Your task to perform on an android device: Open wifi settings Image 0: 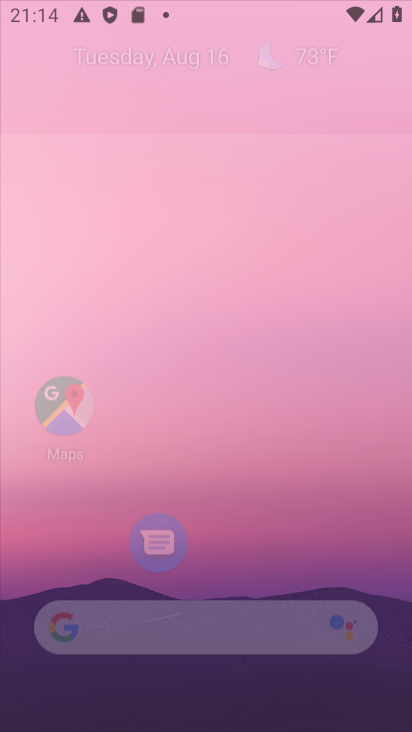
Step 0: click (211, 186)
Your task to perform on an android device: Open wifi settings Image 1: 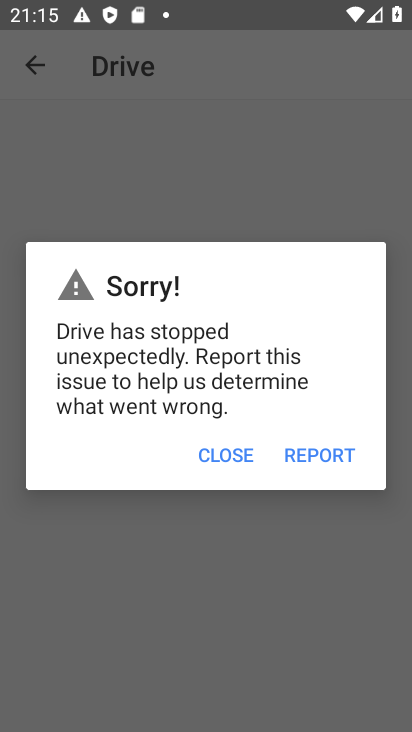
Step 1: press back button
Your task to perform on an android device: Open wifi settings Image 2: 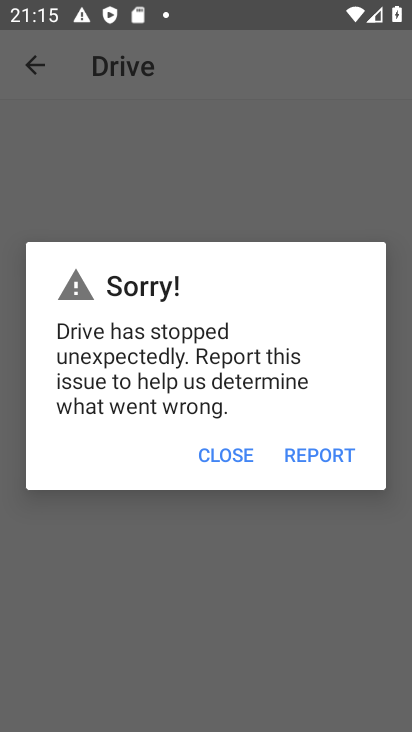
Step 2: click (193, 462)
Your task to perform on an android device: Open wifi settings Image 3: 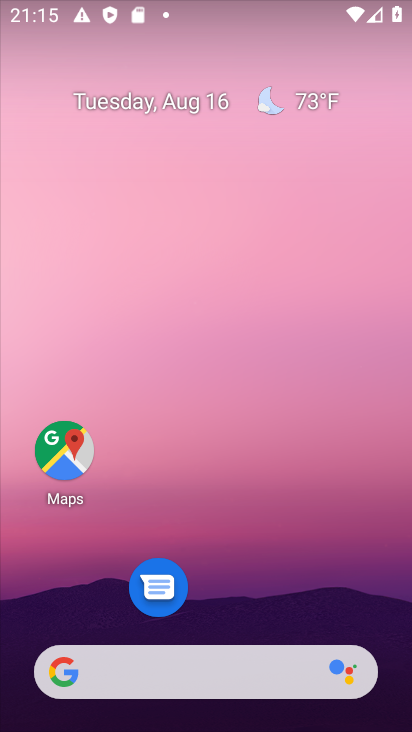
Step 3: click (162, 462)
Your task to perform on an android device: Open wifi settings Image 4: 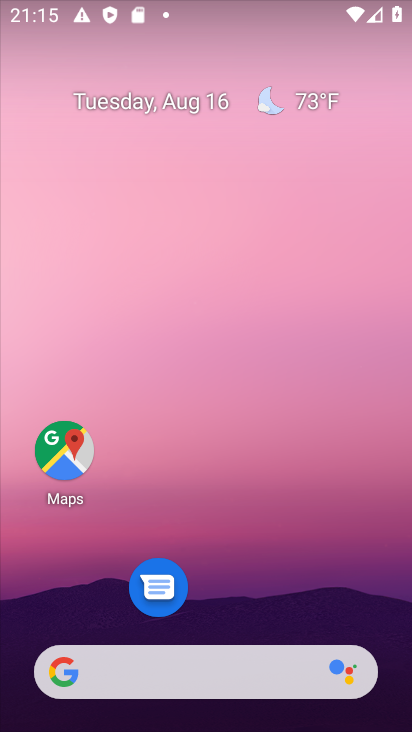
Step 4: drag from (253, 634) to (194, 153)
Your task to perform on an android device: Open wifi settings Image 5: 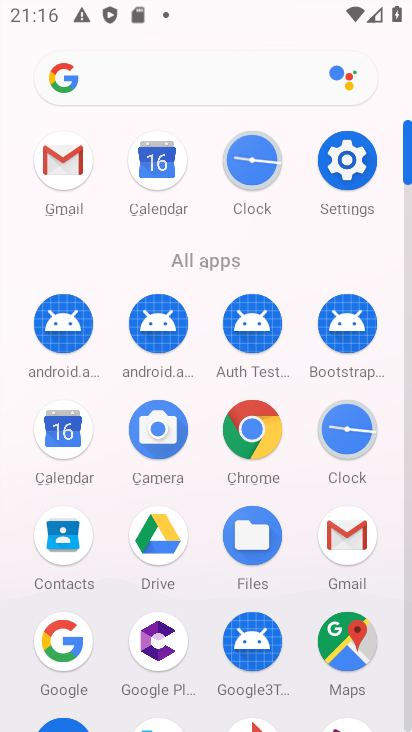
Step 5: click (194, 153)
Your task to perform on an android device: Open wifi settings Image 6: 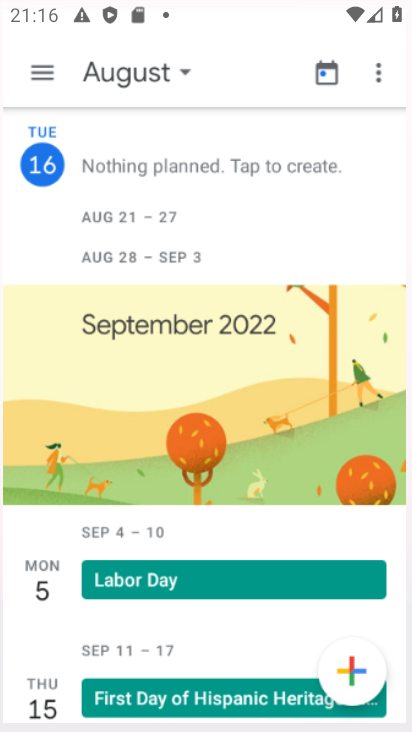
Step 6: click (365, 161)
Your task to perform on an android device: Open wifi settings Image 7: 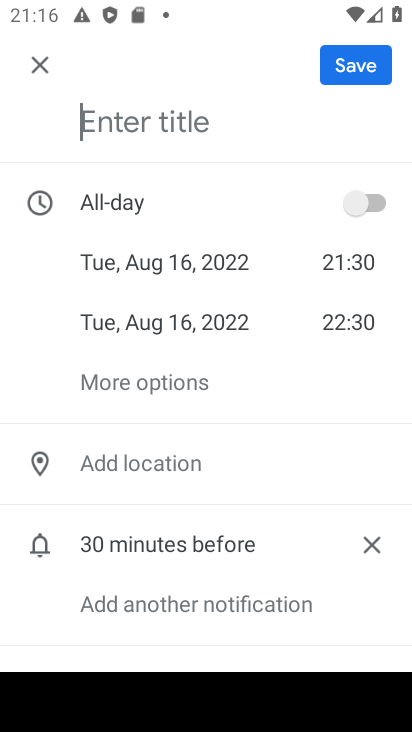
Step 7: press back button
Your task to perform on an android device: Open wifi settings Image 8: 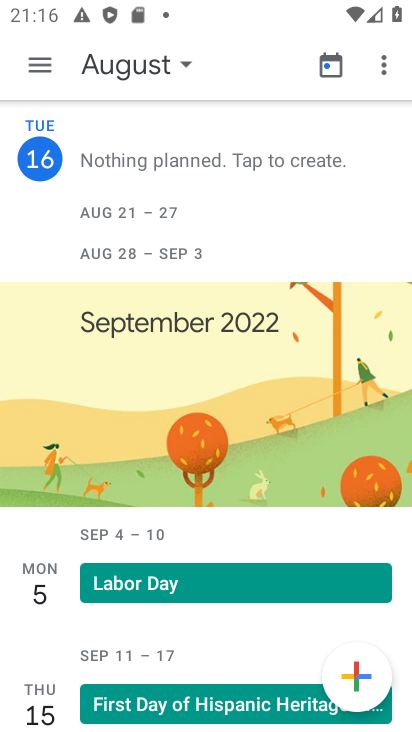
Step 8: press back button
Your task to perform on an android device: Open wifi settings Image 9: 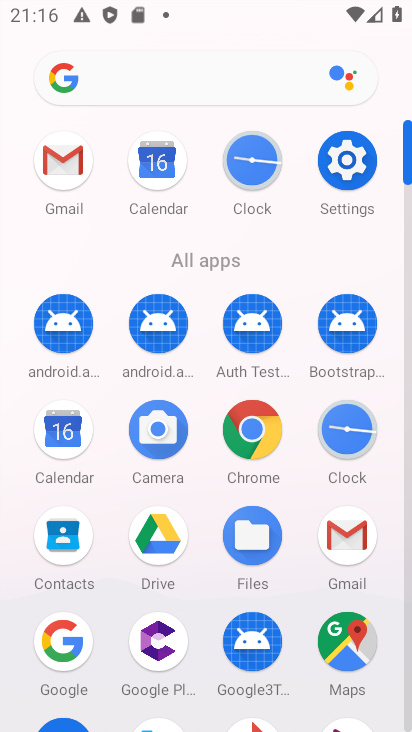
Step 9: press home button
Your task to perform on an android device: Open wifi settings Image 10: 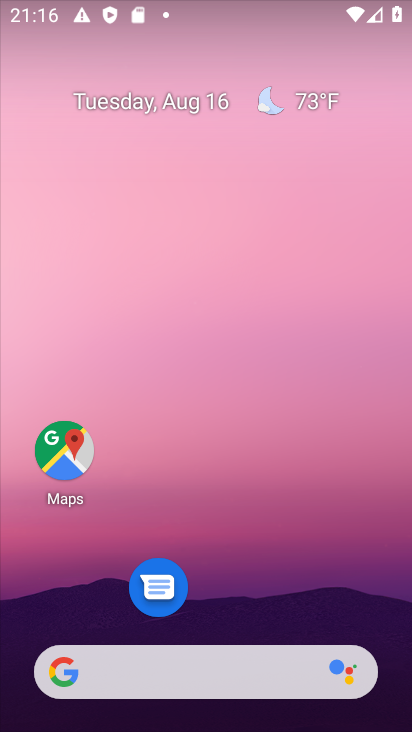
Step 10: drag from (226, 610) to (308, 14)
Your task to perform on an android device: Open wifi settings Image 11: 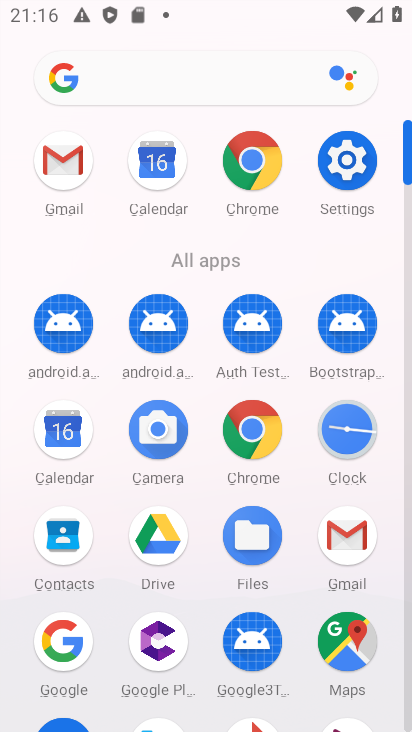
Step 11: click (356, 181)
Your task to perform on an android device: Open wifi settings Image 12: 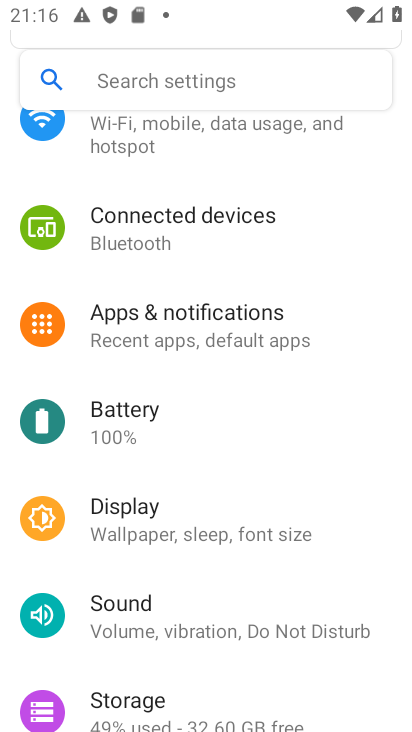
Step 12: click (219, 157)
Your task to perform on an android device: Open wifi settings Image 13: 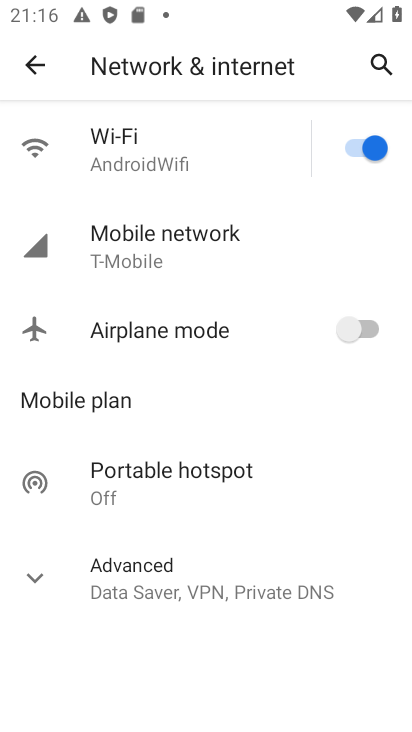
Step 13: click (189, 160)
Your task to perform on an android device: Open wifi settings Image 14: 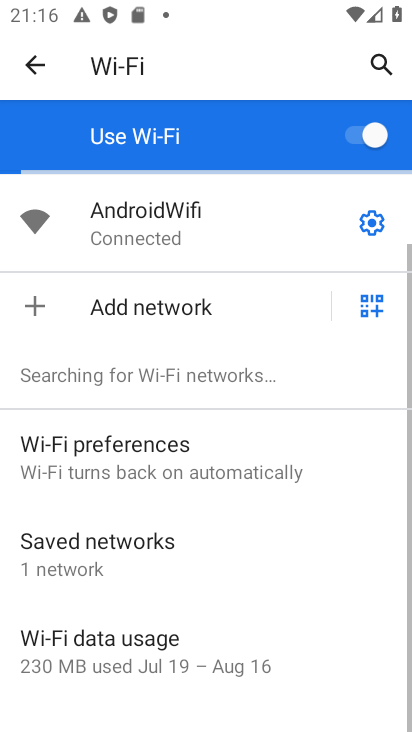
Step 14: task complete